Your task to perform on an android device: Go to Reddit.com Image 0: 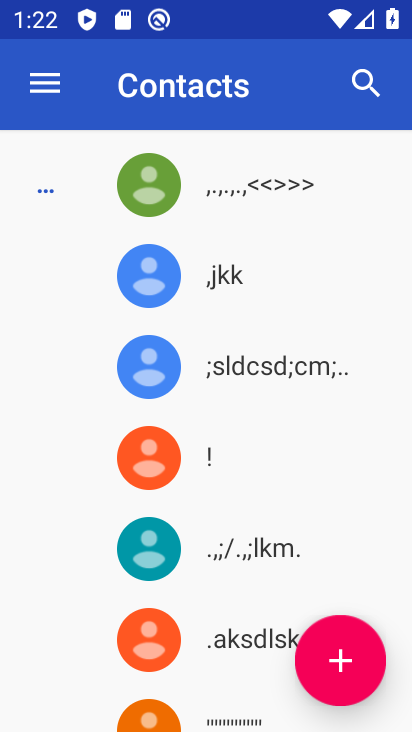
Step 0: press back button
Your task to perform on an android device: Go to Reddit.com Image 1: 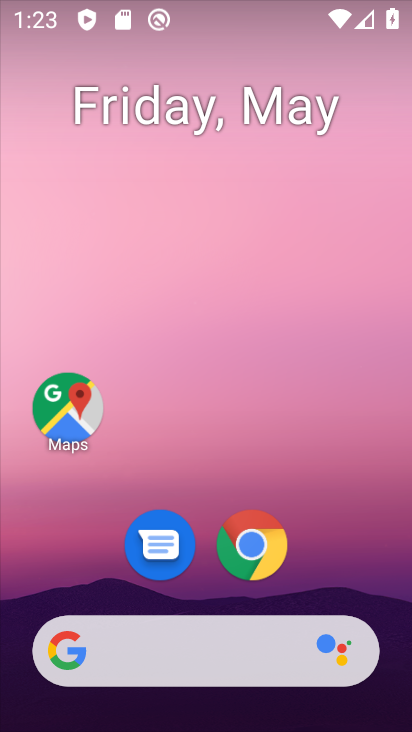
Step 1: drag from (278, 683) to (149, 0)
Your task to perform on an android device: Go to Reddit.com Image 2: 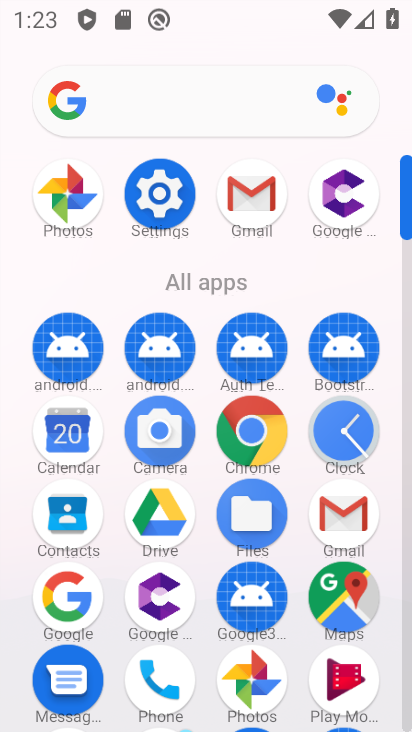
Step 2: click (241, 425)
Your task to perform on an android device: Go to Reddit.com Image 3: 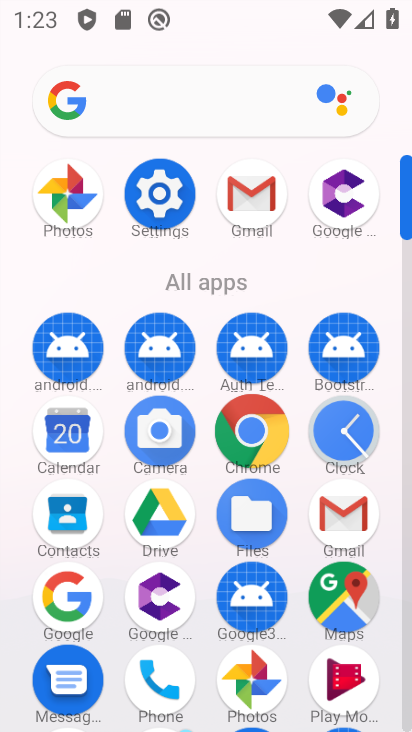
Step 3: click (245, 422)
Your task to perform on an android device: Go to Reddit.com Image 4: 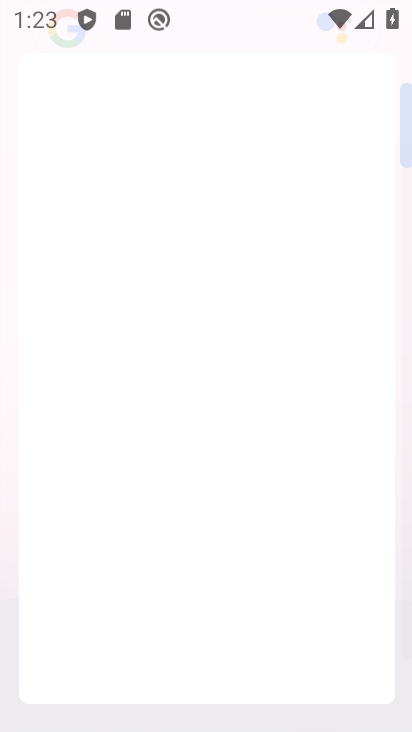
Step 4: click (245, 422)
Your task to perform on an android device: Go to Reddit.com Image 5: 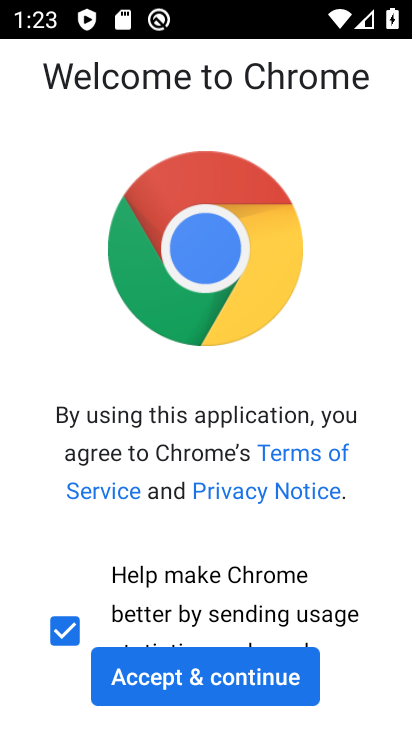
Step 5: click (193, 679)
Your task to perform on an android device: Go to Reddit.com Image 6: 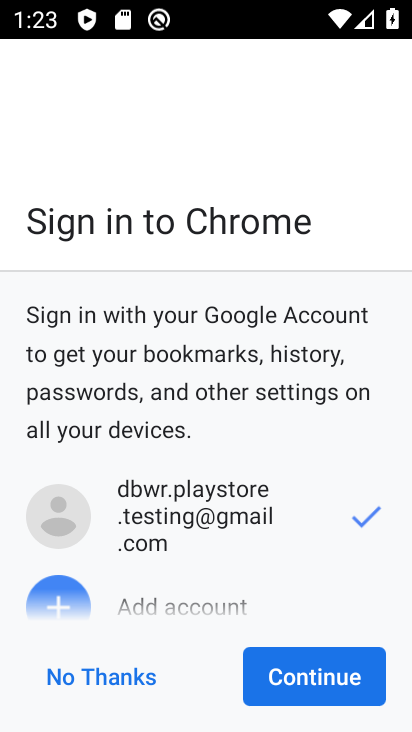
Step 6: click (332, 683)
Your task to perform on an android device: Go to Reddit.com Image 7: 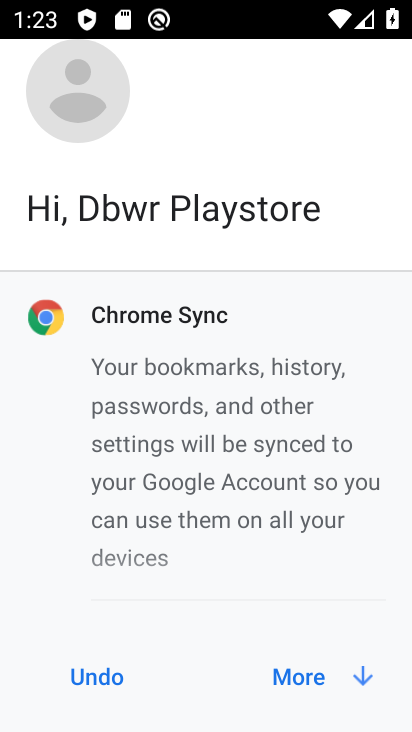
Step 7: click (299, 667)
Your task to perform on an android device: Go to Reddit.com Image 8: 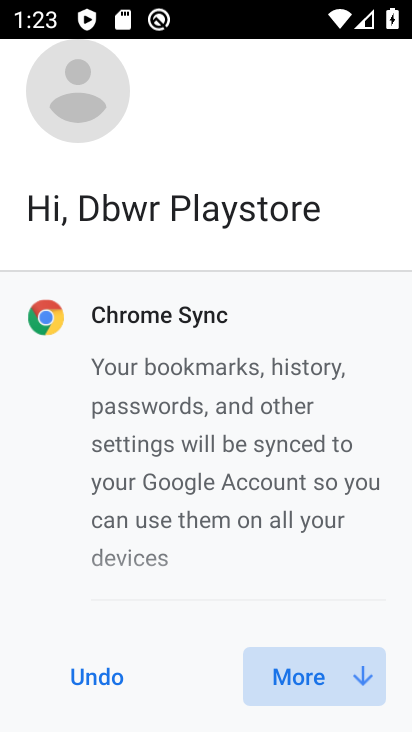
Step 8: click (314, 660)
Your task to perform on an android device: Go to Reddit.com Image 9: 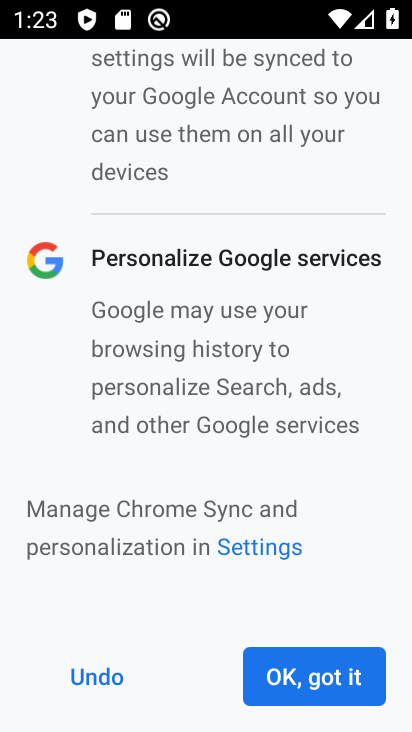
Step 9: click (315, 659)
Your task to perform on an android device: Go to Reddit.com Image 10: 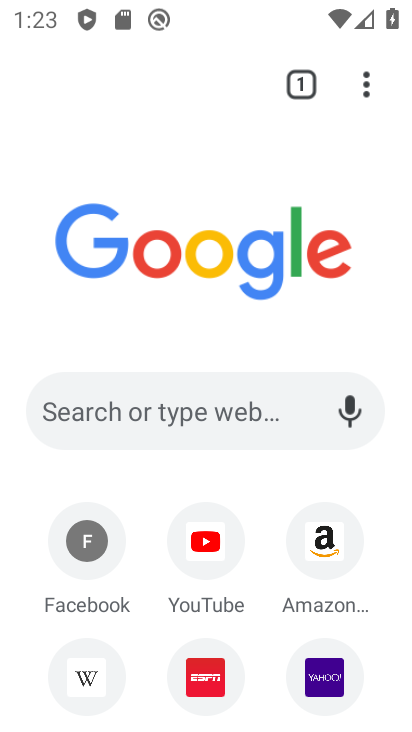
Step 10: click (69, 408)
Your task to perform on an android device: Go to Reddit.com Image 11: 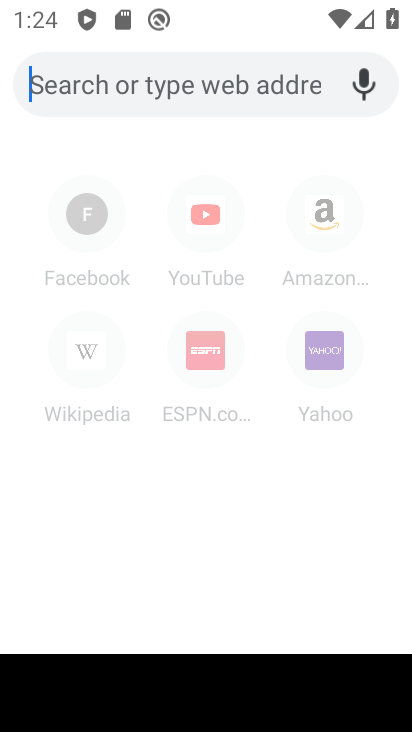
Step 11: type "reddit.com"
Your task to perform on an android device: Go to Reddit.com Image 12: 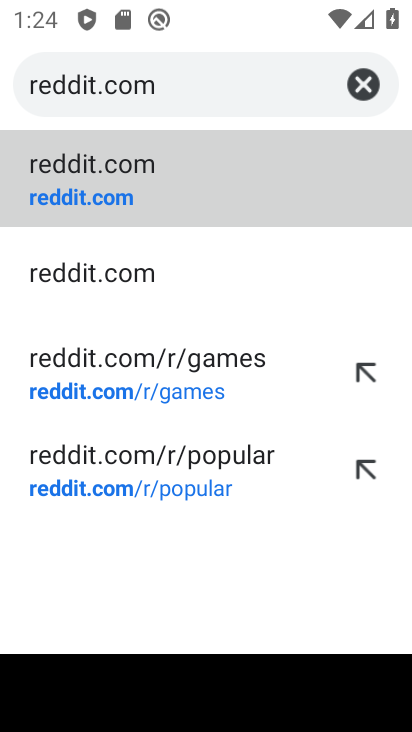
Step 12: click (60, 183)
Your task to perform on an android device: Go to Reddit.com Image 13: 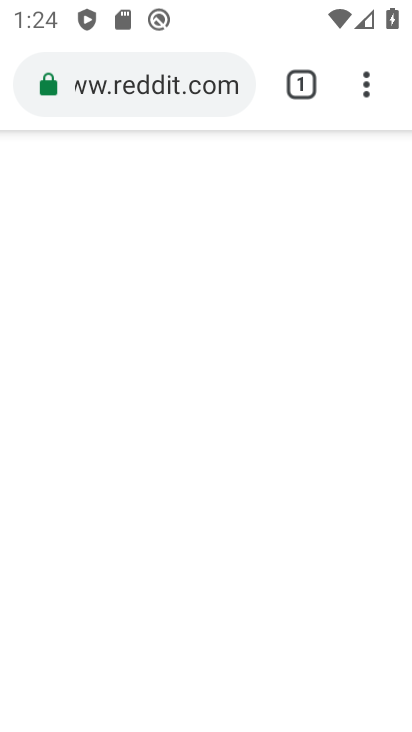
Step 13: task complete